Your task to perform on an android device: Find coffee shops on Maps Image 0: 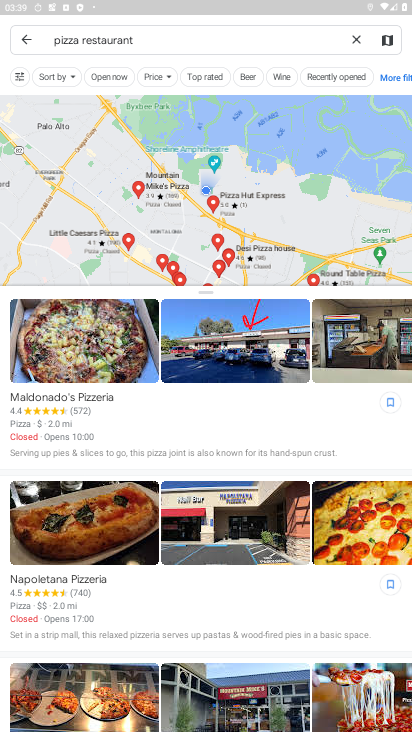
Step 0: press home button
Your task to perform on an android device: Find coffee shops on Maps Image 1: 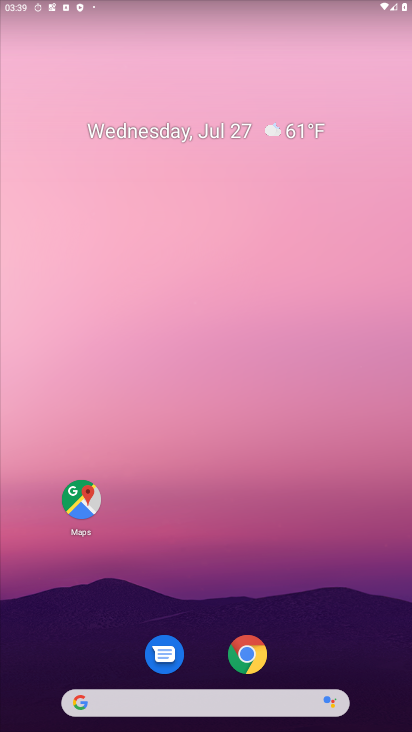
Step 1: drag from (291, 702) to (352, 16)
Your task to perform on an android device: Find coffee shops on Maps Image 2: 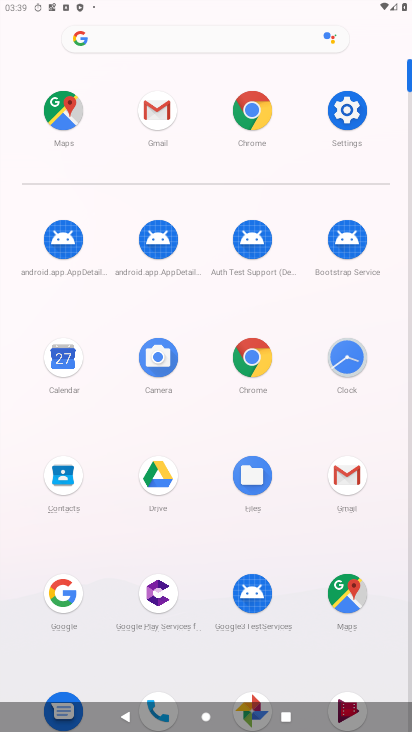
Step 2: click (344, 589)
Your task to perform on an android device: Find coffee shops on Maps Image 3: 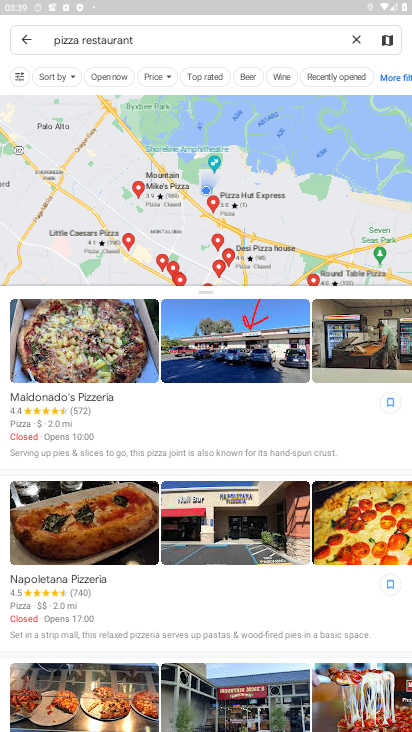
Step 3: press back button
Your task to perform on an android device: Find coffee shops on Maps Image 4: 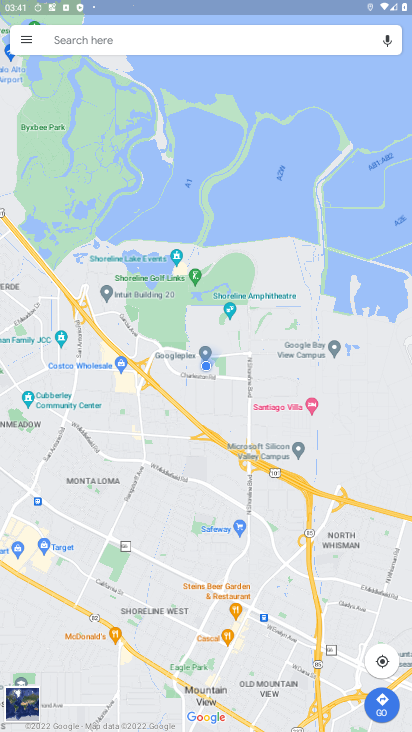
Step 4: click (203, 49)
Your task to perform on an android device: Find coffee shops on Maps Image 5: 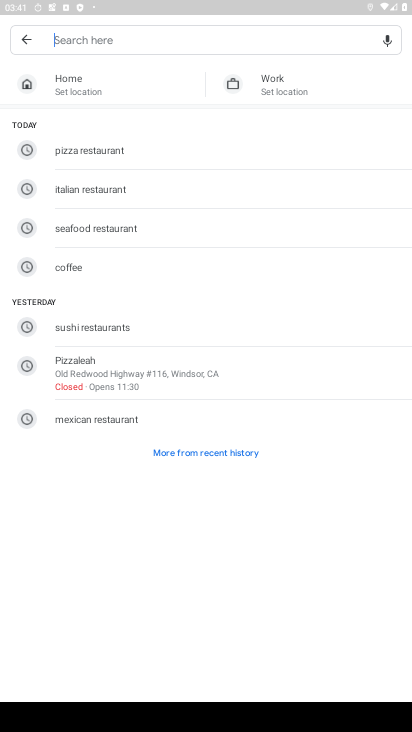
Step 5: type "coffee shop"
Your task to perform on an android device: Find coffee shops on Maps Image 6: 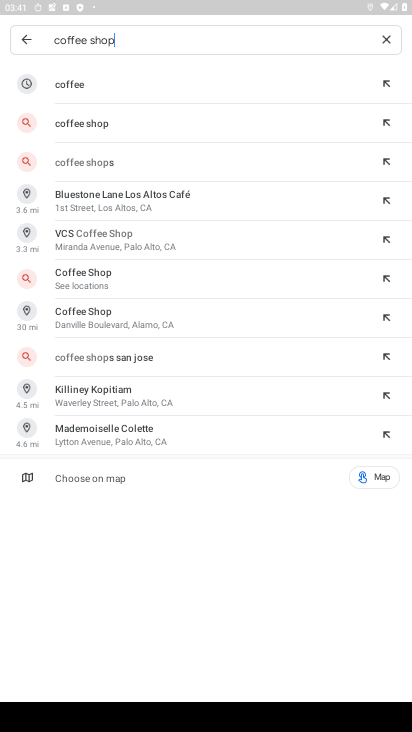
Step 6: click (90, 128)
Your task to perform on an android device: Find coffee shops on Maps Image 7: 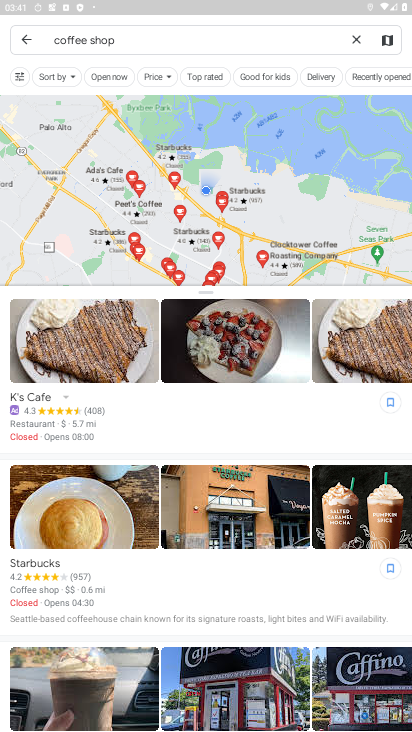
Step 7: task complete